Your task to perform on an android device: Clear the shopping cart on costco. Image 0: 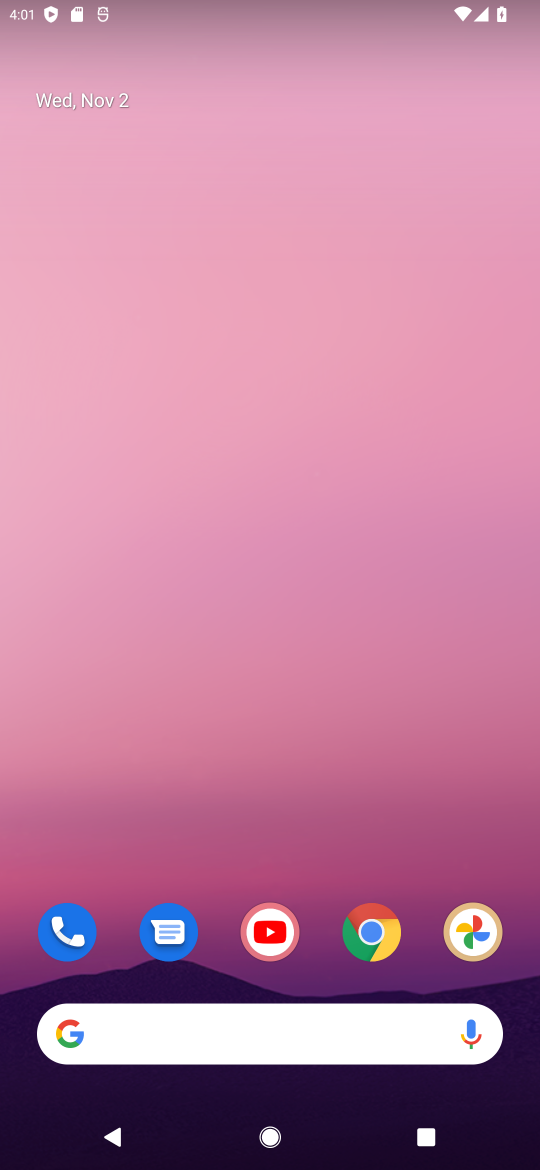
Step 0: click (374, 932)
Your task to perform on an android device: Clear the shopping cart on costco. Image 1: 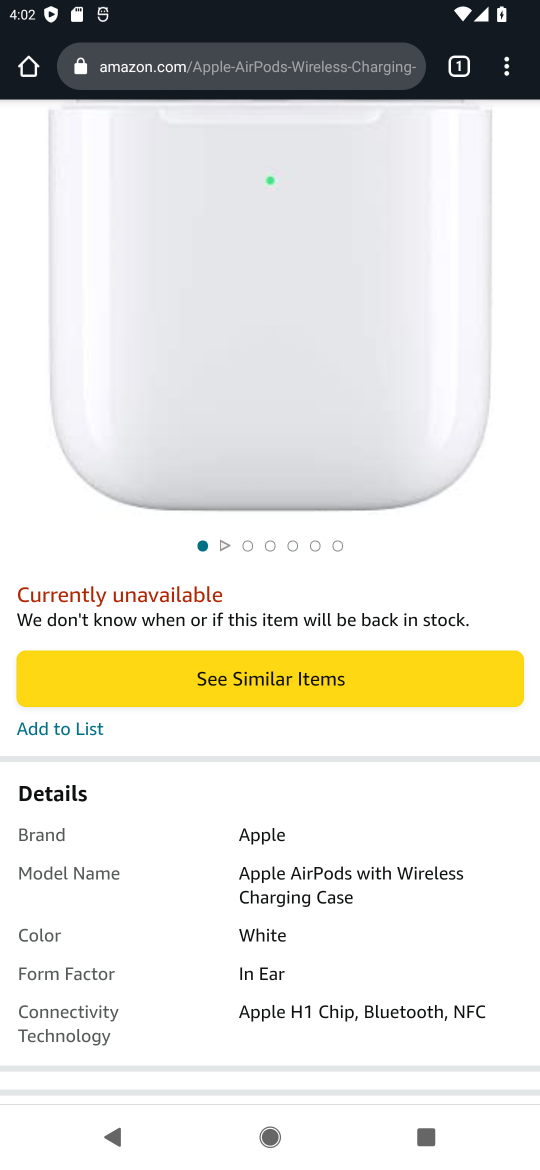
Step 1: click (236, 62)
Your task to perform on an android device: Clear the shopping cart on costco. Image 2: 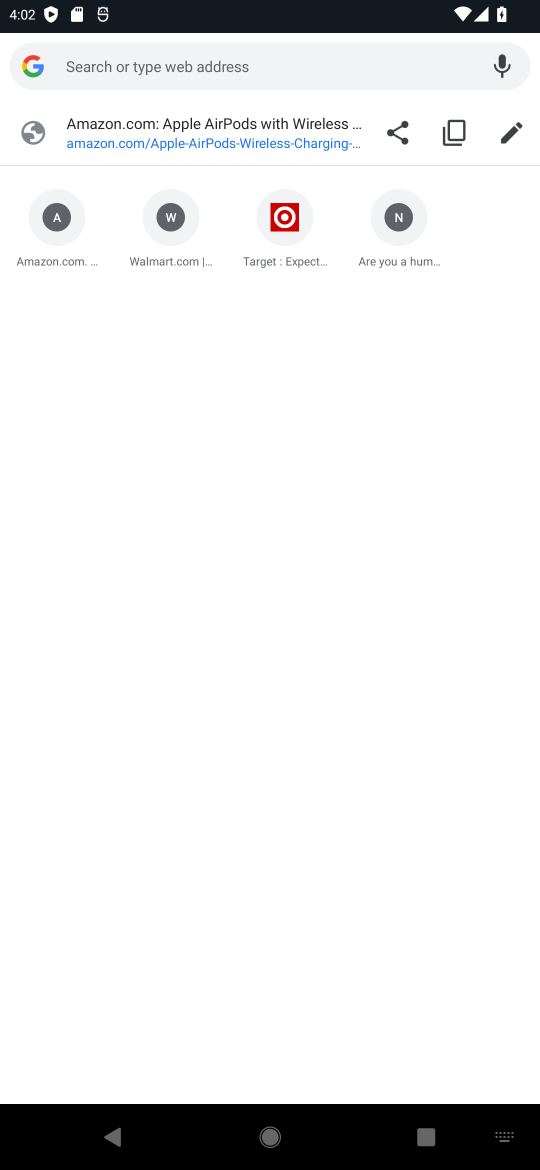
Step 2: type "costco"
Your task to perform on an android device: Clear the shopping cart on costco. Image 3: 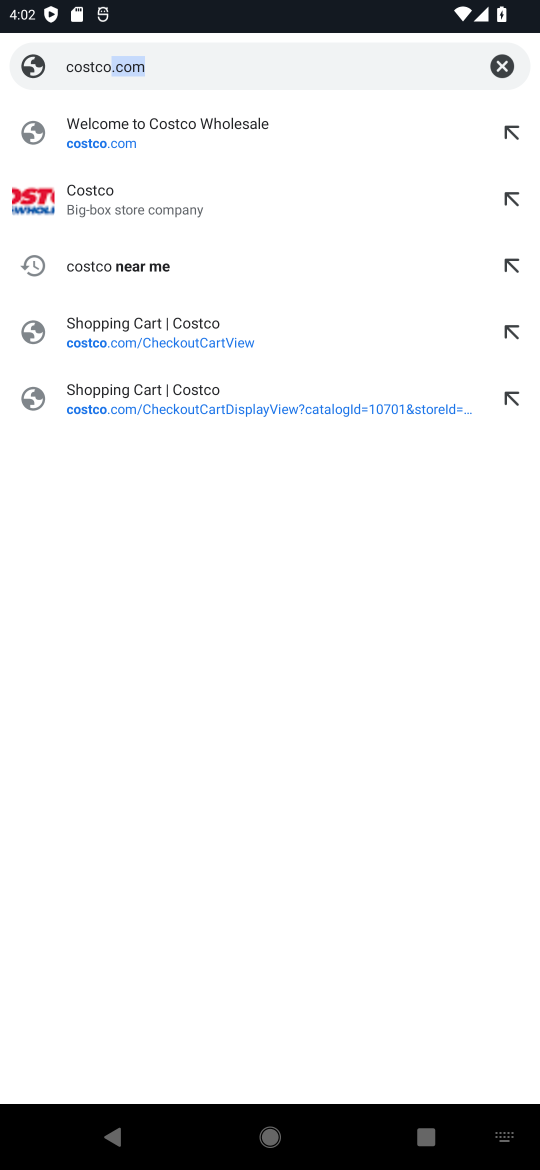
Step 3: click (144, 144)
Your task to perform on an android device: Clear the shopping cart on costco. Image 4: 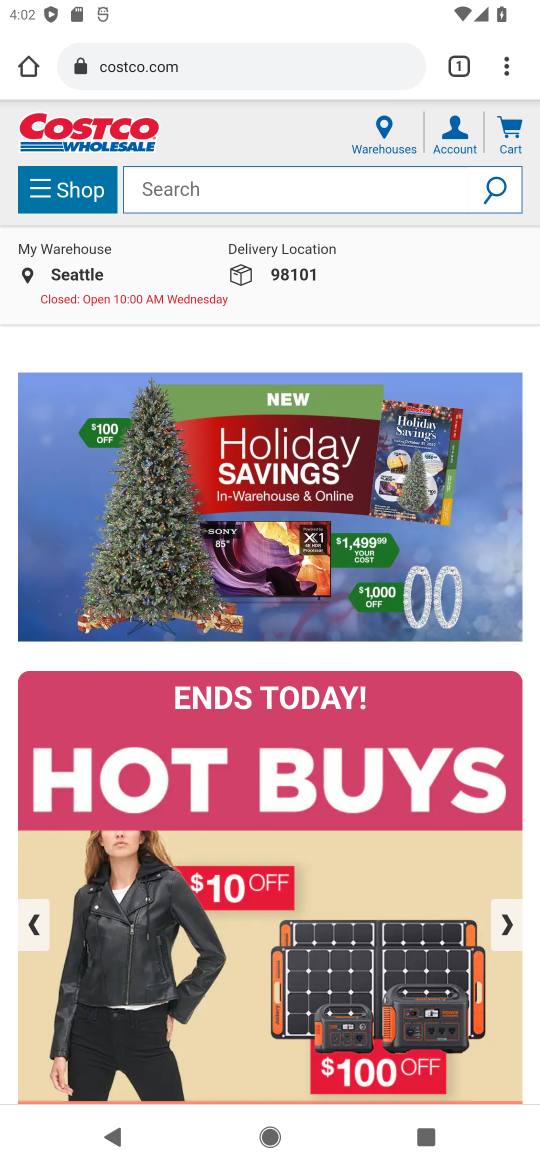
Step 4: click (502, 138)
Your task to perform on an android device: Clear the shopping cart on costco. Image 5: 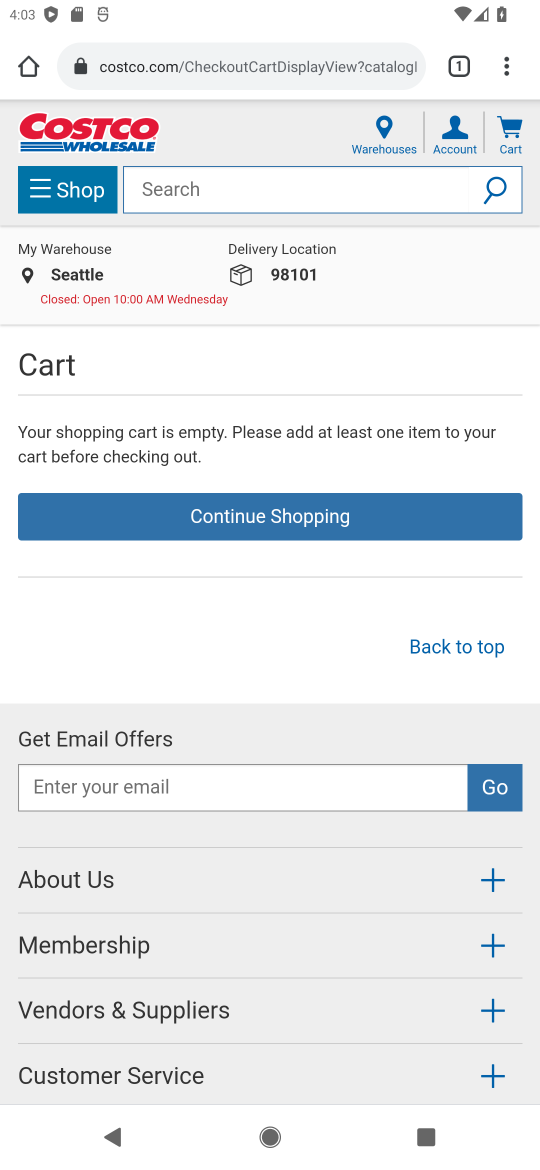
Step 5: task complete